Your task to perform on an android device: Clear the shopping cart on walmart.com. Add "corsair k70" to the cart on walmart.com Image 0: 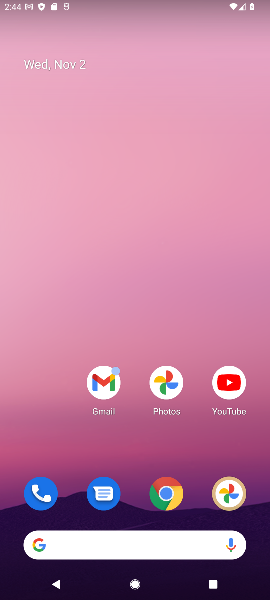
Step 0: click (158, 482)
Your task to perform on an android device: Clear the shopping cart on walmart.com. Add "corsair k70" to the cart on walmart.com Image 1: 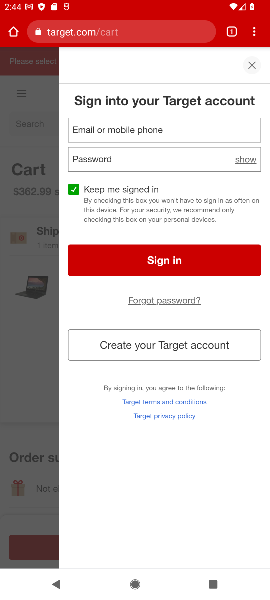
Step 1: click (166, 31)
Your task to perform on an android device: Clear the shopping cart on walmart.com. Add "corsair k70" to the cart on walmart.com Image 2: 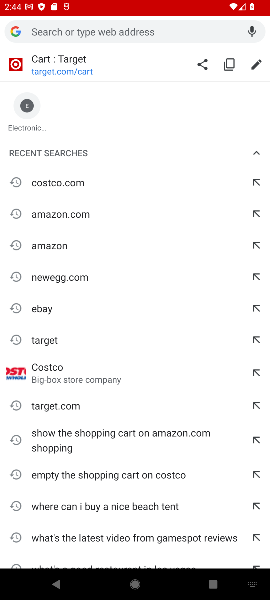
Step 2: type "walmart.com"
Your task to perform on an android device: Clear the shopping cart on walmart.com. Add "corsair k70" to the cart on walmart.com Image 3: 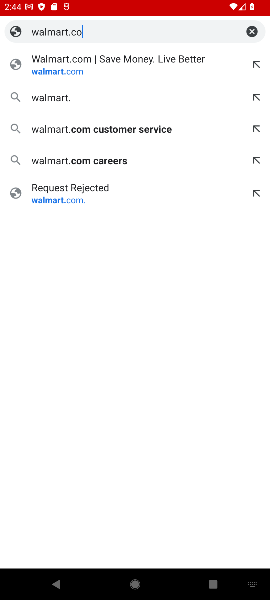
Step 3: press enter
Your task to perform on an android device: Clear the shopping cart on walmart.com. Add "corsair k70" to the cart on walmart.com Image 4: 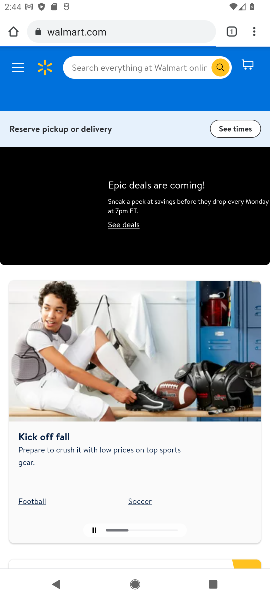
Step 4: click (249, 60)
Your task to perform on an android device: Clear the shopping cart on walmart.com. Add "corsair k70" to the cart on walmart.com Image 5: 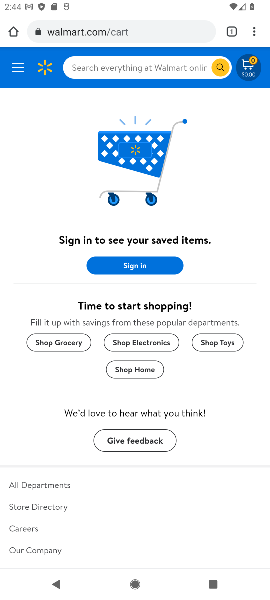
Step 5: click (130, 59)
Your task to perform on an android device: Clear the shopping cart on walmart.com. Add "corsair k70" to the cart on walmart.com Image 6: 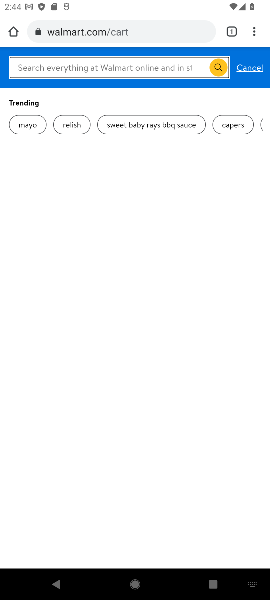
Step 6: type "corsair k70"
Your task to perform on an android device: Clear the shopping cart on walmart.com. Add "corsair k70" to the cart on walmart.com Image 7: 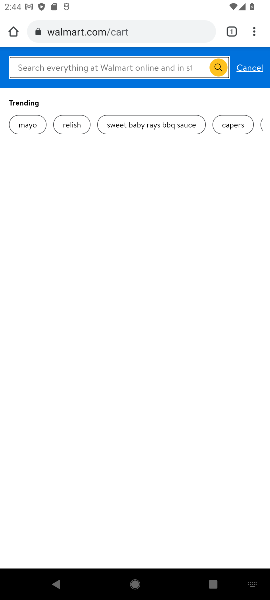
Step 7: press enter
Your task to perform on an android device: Clear the shopping cart on walmart.com. Add "corsair k70" to the cart on walmart.com Image 8: 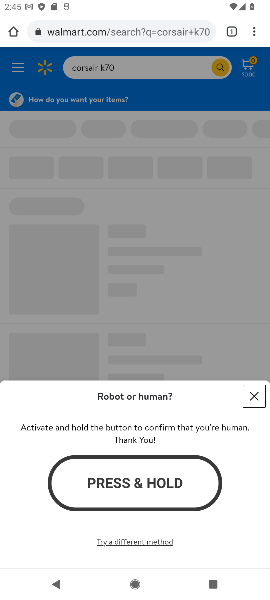
Step 8: click (175, 482)
Your task to perform on an android device: Clear the shopping cart on walmart.com. Add "corsair k70" to the cart on walmart.com Image 9: 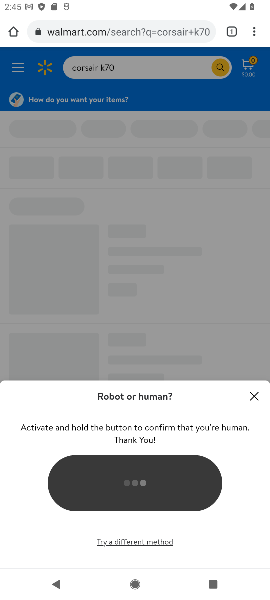
Step 9: click (162, 542)
Your task to perform on an android device: Clear the shopping cart on walmart.com. Add "corsair k70" to the cart on walmart.com Image 10: 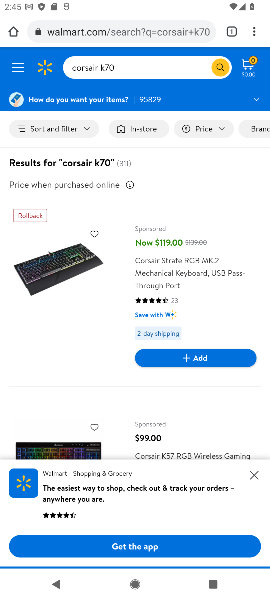
Step 10: drag from (140, 391) to (139, 217)
Your task to perform on an android device: Clear the shopping cart on walmart.com. Add "corsair k70" to the cart on walmart.com Image 11: 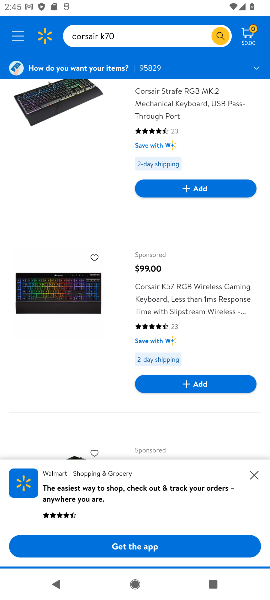
Step 11: drag from (101, 387) to (126, 189)
Your task to perform on an android device: Clear the shopping cart on walmart.com. Add "corsair k70" to the cart on walmart.com Image 12: 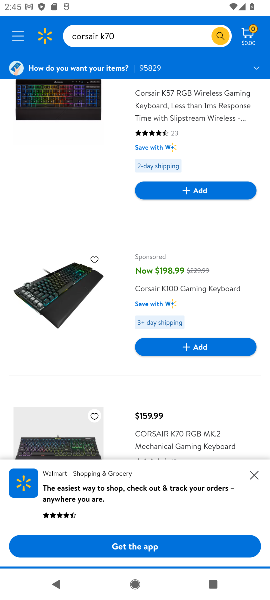
Step 12: drag from (105, 377) to (110, 250)
Your task to perform on an android device: Clear the shopping cart on walmart.com. Add "corsair k70" to the cart on walmart.com Image 13: 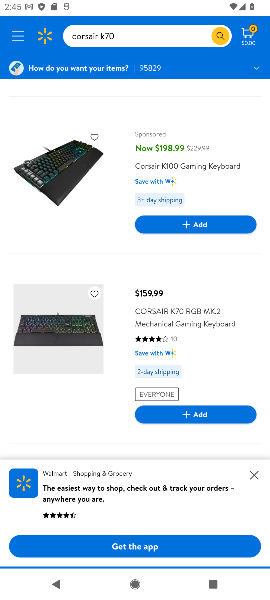
Step 13: click (64, 317)
Your task to perform on an android device: Clear the shopping cart on walmart.com. Add "corsair k70" to the cart on walmart.com Image 14: 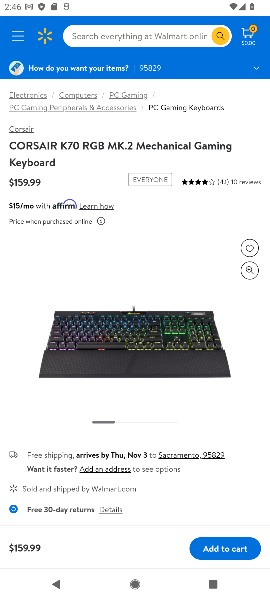
Step 14: click (212, 542)
Your task to perform on an android device: Clear the shopping cart on walmart.com. Add "corsair k70" to the cart on walmart.com Image 15: 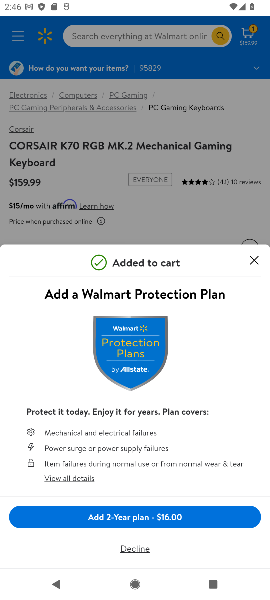
Step 15: task complete